Your task to perform on an android device: turn off airplane mode Image 0: 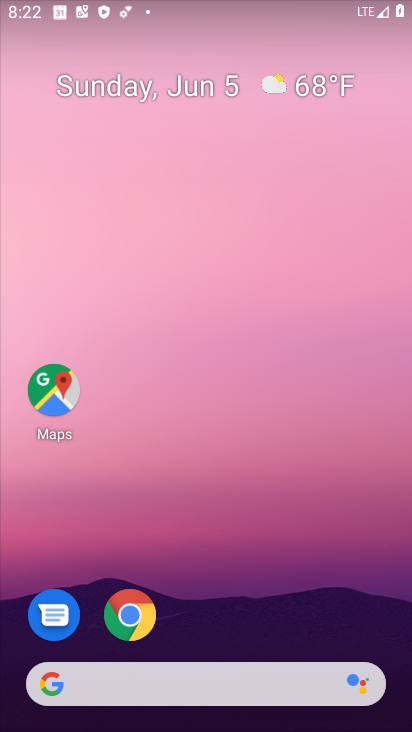
Step 0: drag from (162, 670) to (267, 5)
Your task to perform on an android device: turn off airplane mode Image 1: 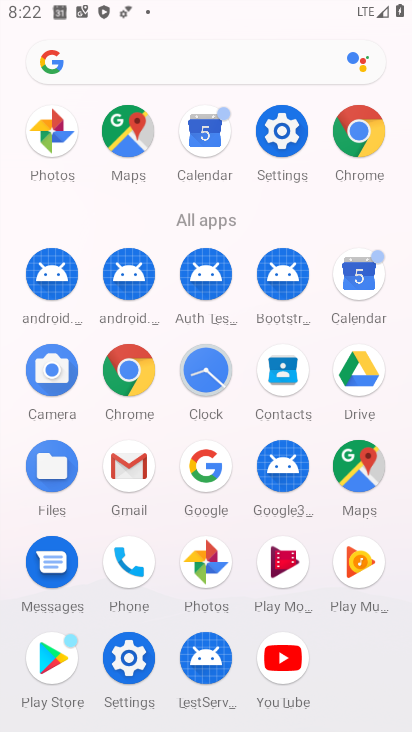
Step 1: click (278, 139)
Your task to perform on an android device: turn off airplane mode Image 2: 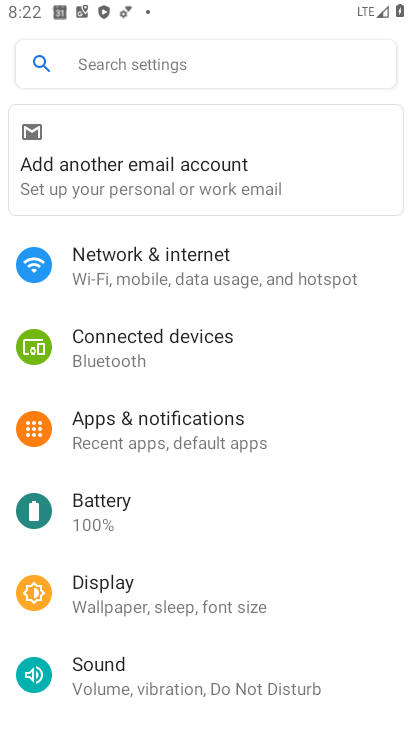
Step 2: click (82, 283)
Your task to perform on an android device: turn off airplane mode Image 3: 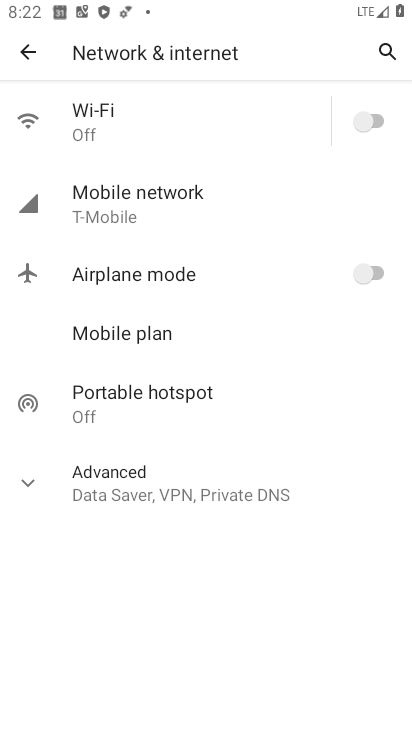
Step 3: task complete